Your task to perform on an android device: Play the last video I watched on Youtube Image 0: 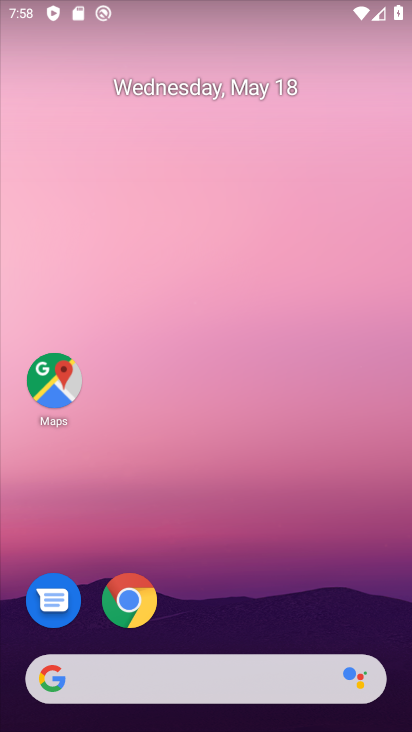
Step 0: drag from (6, 671) to (318, 115)
Your task to perform on an android device: Play the last video I watched on Youtube Image 1: 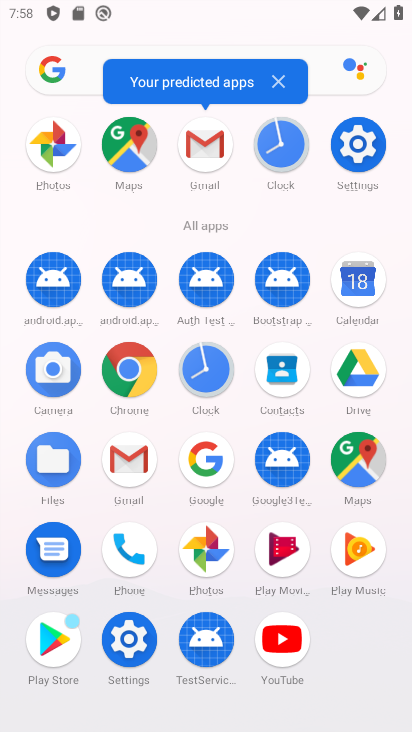
Step 1: click (294, 630)
Your task to perform on an android device: Play the last video I watched on Youtube Image 2: 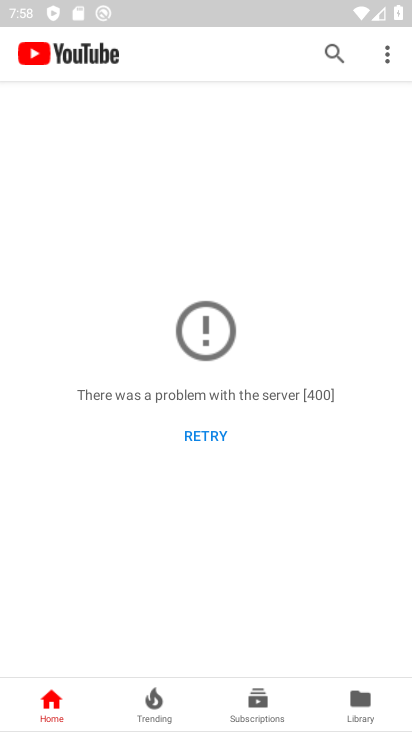
Step 2: click (353, 705)
Your task to perform on an android device: Play the last video I watched on Youtube Image 3: 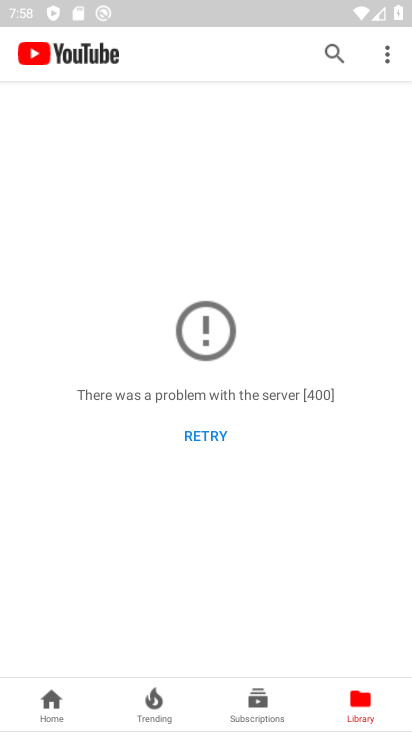
Step 3: task complete